Your task to perform on an android device: Open CNN.com Image 0: 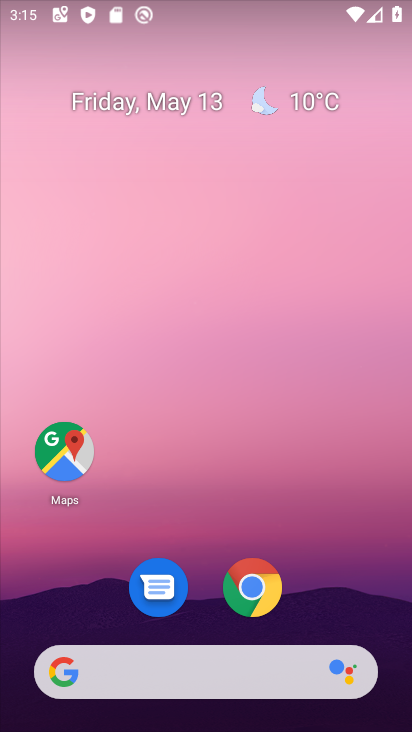
Step 0: click (258, 586)
Your task to perform on an android device: Open CNN.com Image 1: 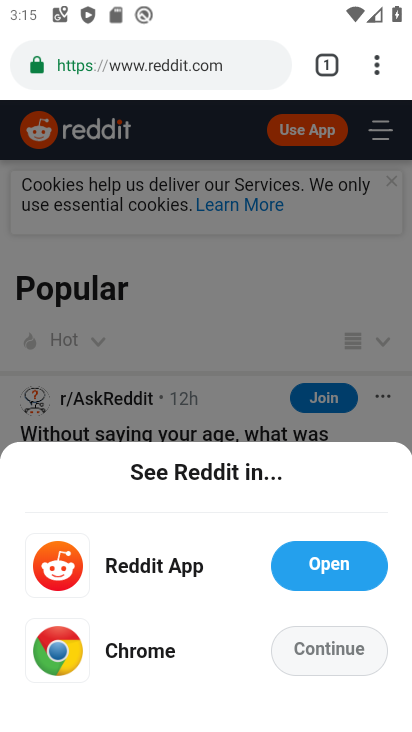
Step 1: click (194, 66)
Your task to perform on an android device: Open CNN.com Image 2: 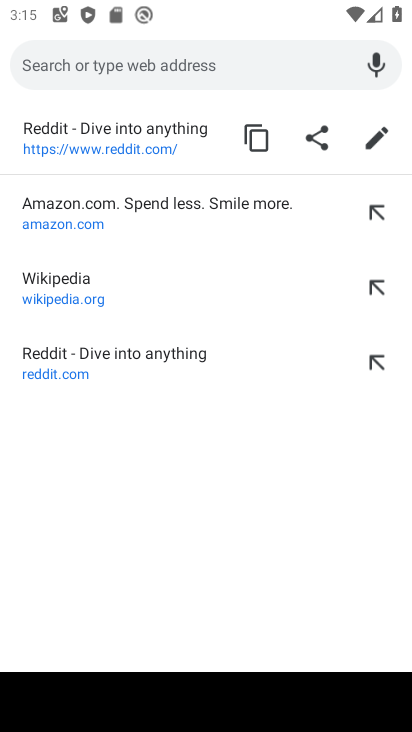
Step 2: type "CNN.com"
Your task to perform on an android device: Open CNN.com Image 3: 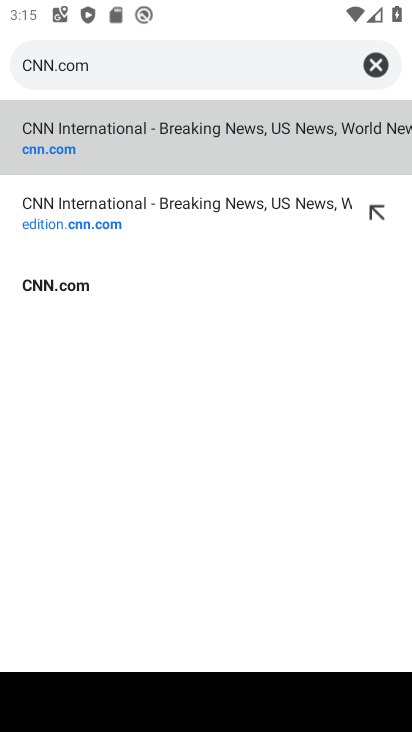
Step 3: click (140, 155)
Your task to perform on an android device: Open CNN.com Image 4: 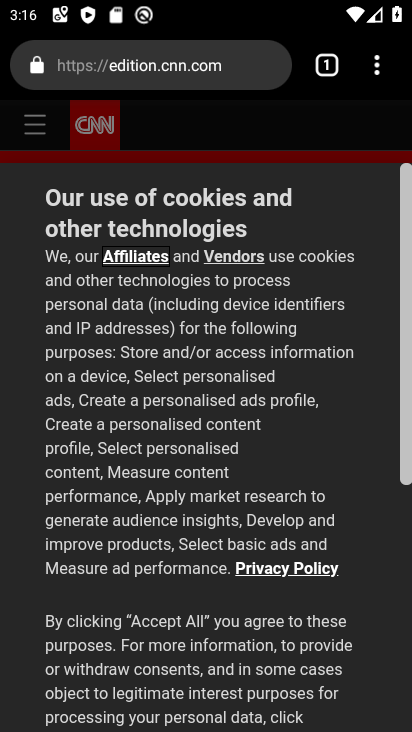
Step 4: task complete